Your task to perform on an android device: turn on airplane mode Image 0: 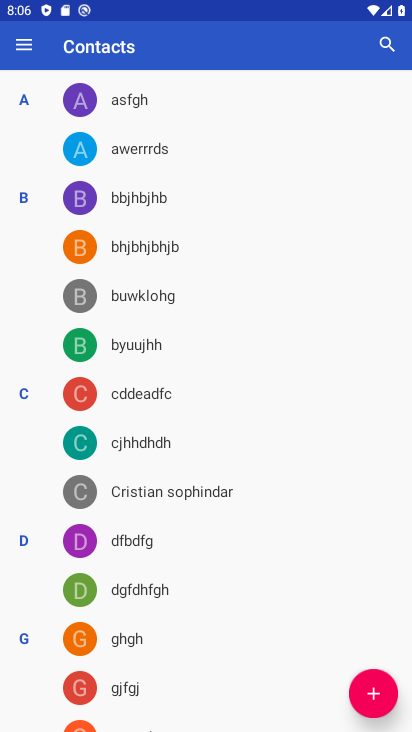
Step 0: press home button
Your task to perform on an android device: turn on airplane mode Image 1: 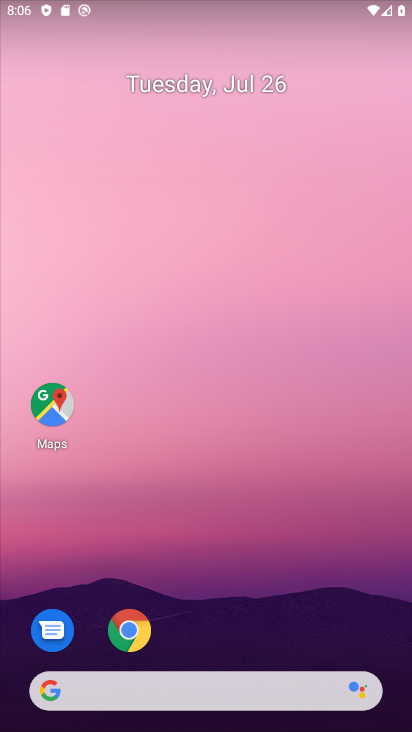
Step 1: drag from (276, 574) to (38, 22)
Your task to perform on an android device: turn on airplane mode Image 2: 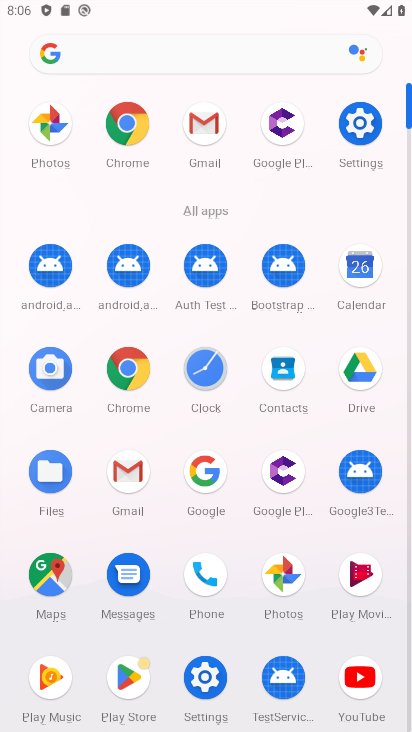
Step 2: click (368, 132)
Your task to perform on an android device: turn on airplane mode Image 3: 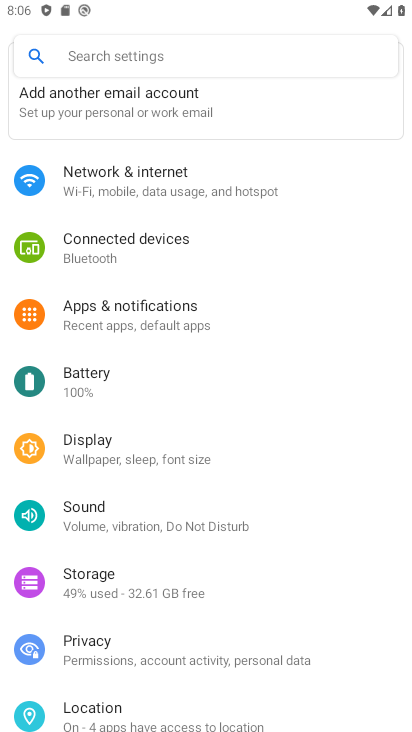
Step 3: drag from (240, 197) to (335, 396)
Your task to perform on an android device: turn on airplane mode Image 4: 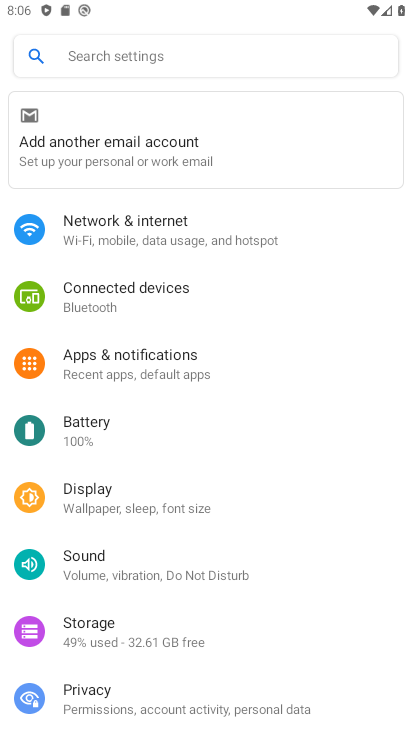
Step 4: click (167, 227)
Your task to perform on an android device: turn on airplane mode Image 5: 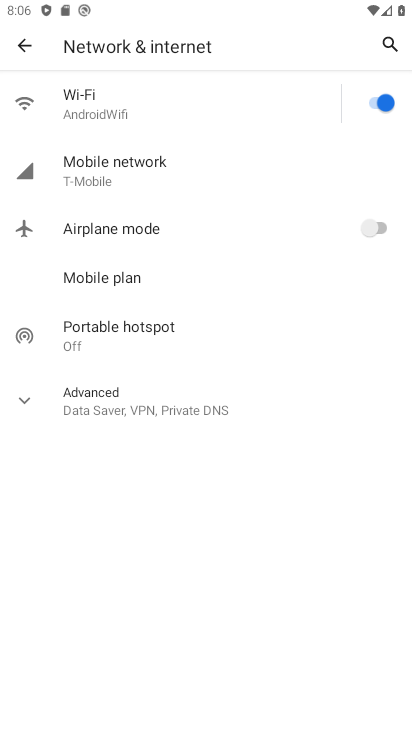
Step 5: click (364, 233)
Your task to perform on an android device: turn on airplane mode Image 6: 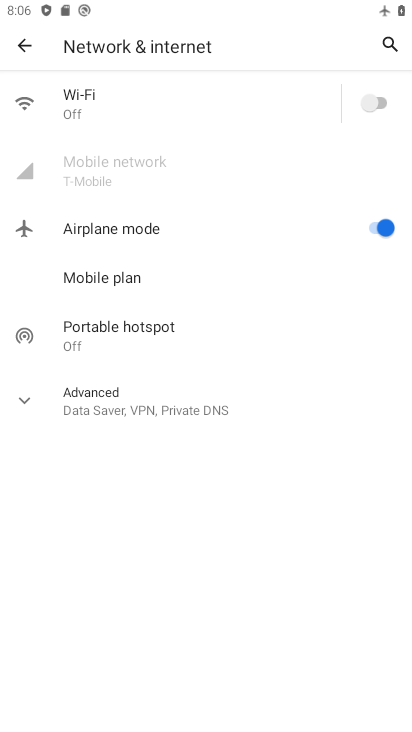
Step 6: task complete